Your task to perform on an android device: Open privacy settings Image 0: 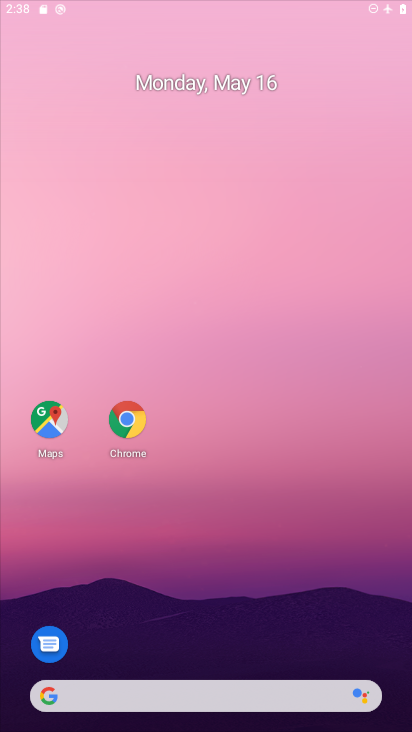
Step 0: click (218, 499)
Your task to perform on an android device: Open privacy settings Image 1: 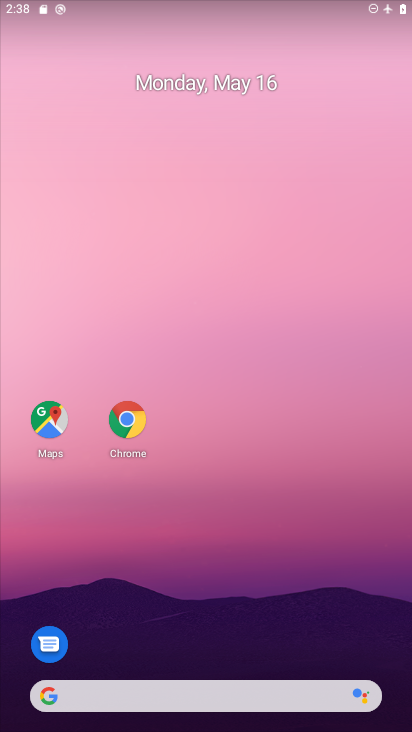
Step 1: drag from (168, 626) to (233, 247)
Your task to perform on an android device: Open privacy settings Image 2: 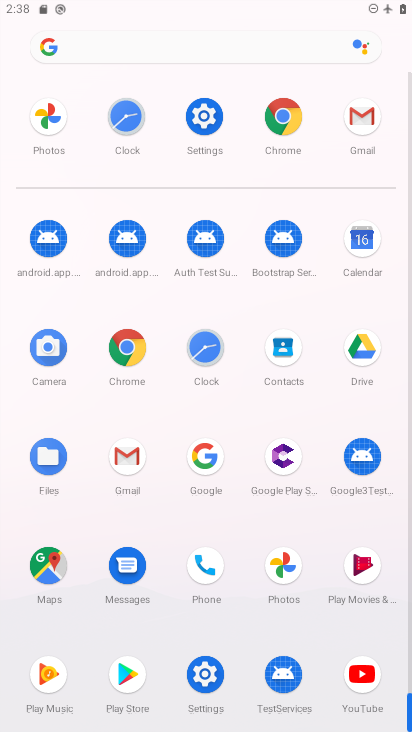
Step 2: click (205, 128)
Your task to perform on an android device: Open privacy settings Image 3: 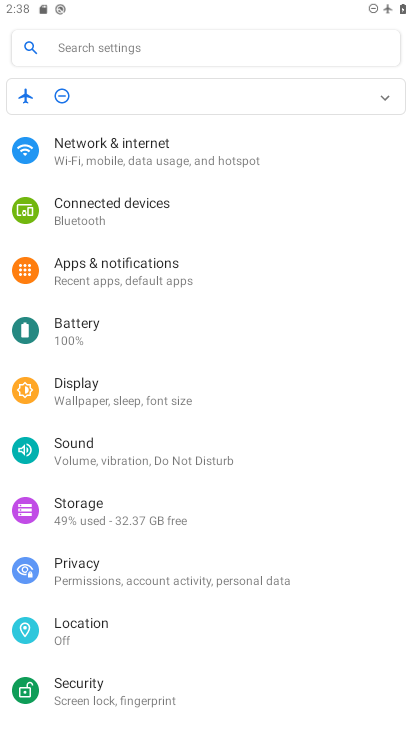
Step 3: click (107, 570)
Your task to perform on an android device: Open privacy settings Image 4: 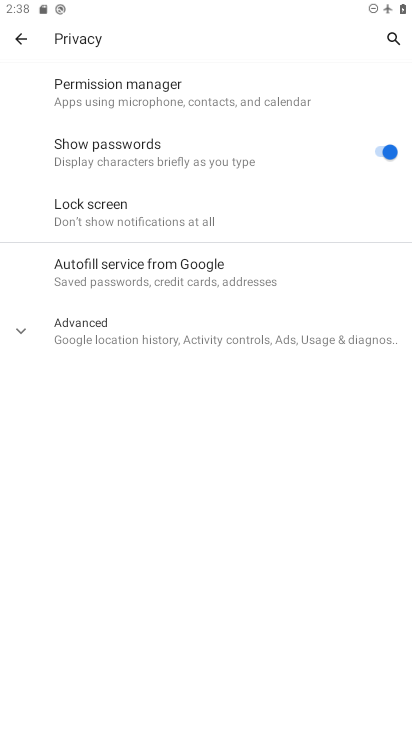
Step 4: task complete